Your task to perform on an android device: Go to Yahoo.com Image 0: 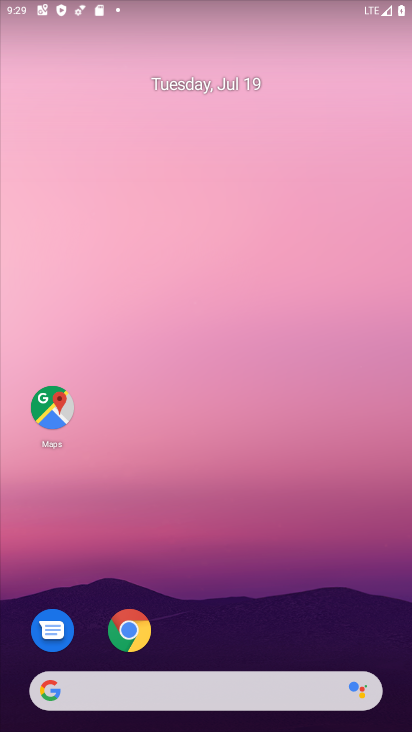
Step 0: drag from (239, 614) to (259, 212)
Your task to perform on an android device: Go to Yahoo.com Image 1: 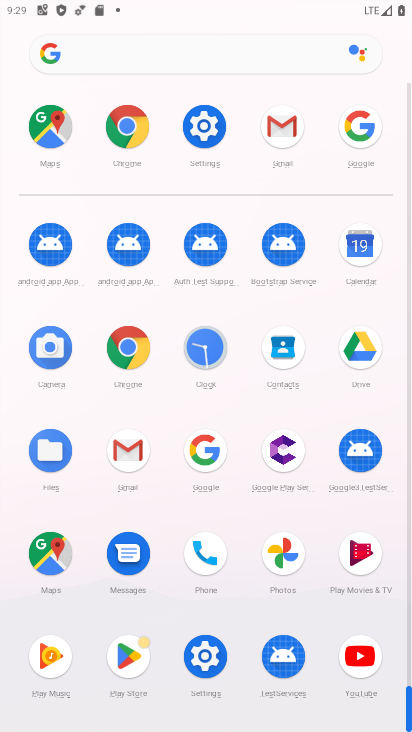
Step 1: click (126, 163)
Your task to perform on an android device: Go to Yahoo.com Image 2: 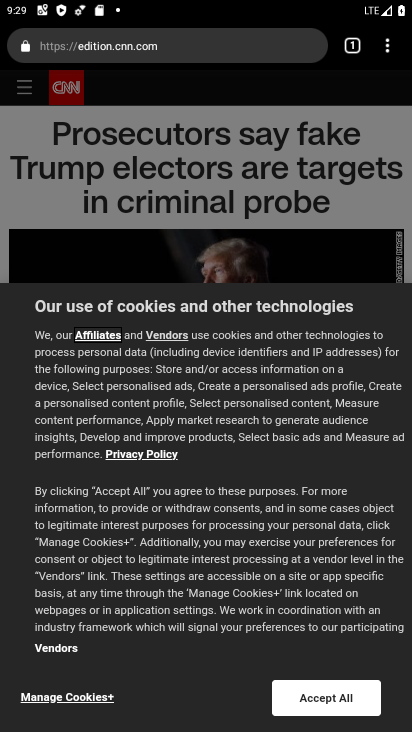
Step 2: click (174, 52)
Your task to perform on an android device: Go to Yahoo.com Image 3: 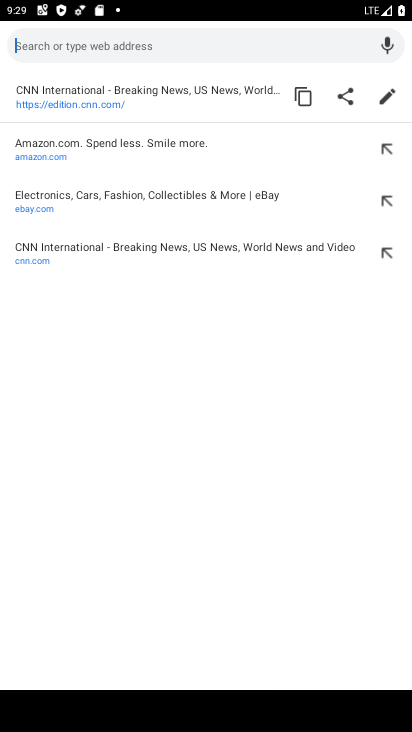
Step 3: type "yahoo"
Your task to perform on an android device: Go to Yahoo.com Image 4: 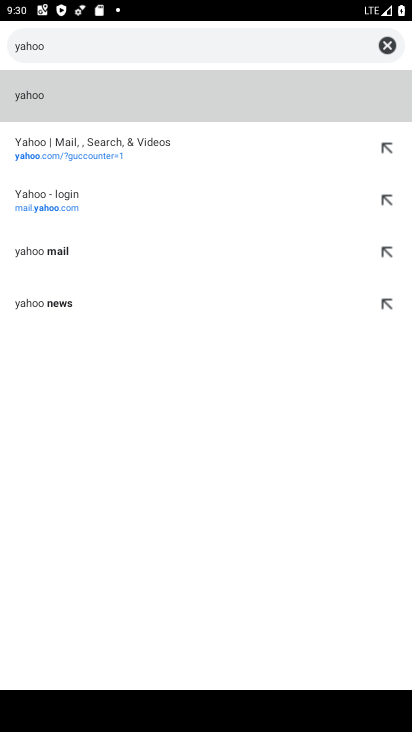
Step 4: click (60, 219)
Your task to perform on an android device: Go to Yahoo.com Image 5: 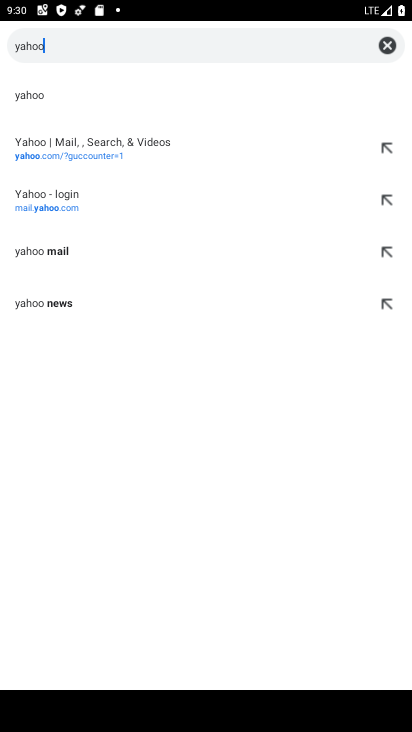
Step 5: click (67, 214)
Your task to perform on an android device: Go to Yahoo.com Image 6: 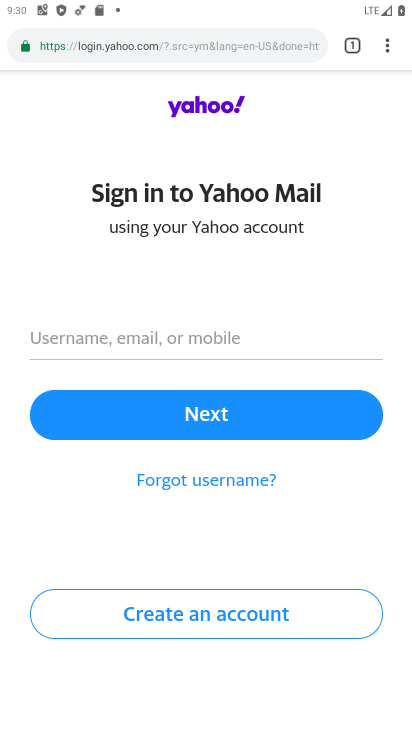
Step 6: task complete